Your task to perform on an android device: turn off notifications in google photos Image 0: 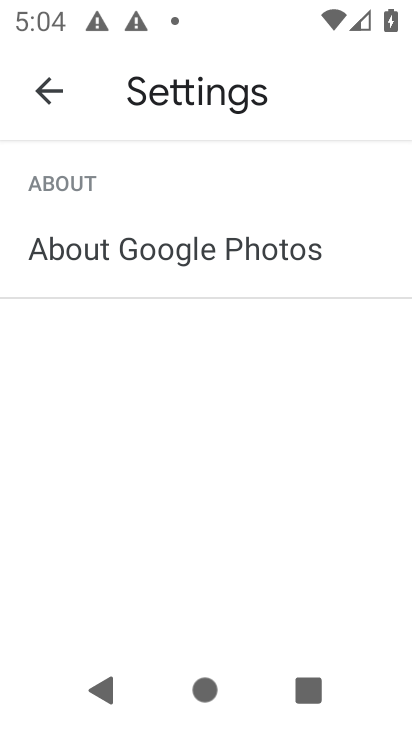
Step 0: press home button
Your task to perform on an android device: turn off notifications in google photos Image 1: 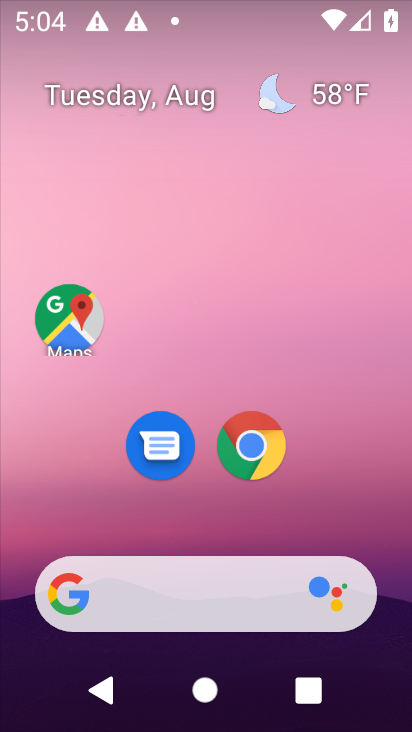
Step 1: drag from (195, 482) to (219, 76)
Your task to perform on an android device: turn off notifications in google photos Image 2: 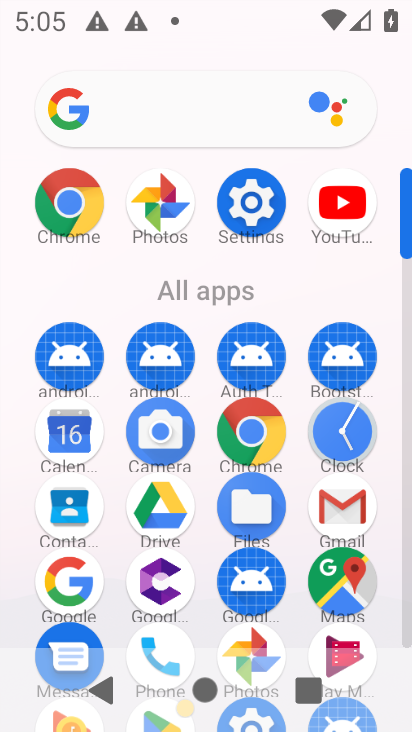
Step 2: click (250, 200)
Your task to perform on an android device: turn off notifications in google photos Image 3: 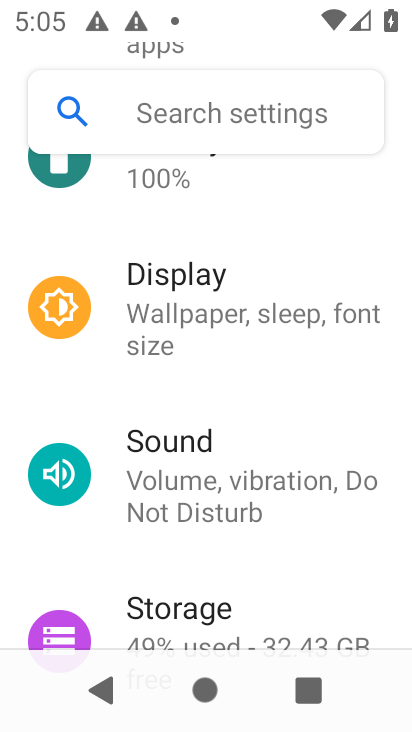
Step 3: press home button
Your task to perform on an android device: turn off notifications in google photos Image 4: 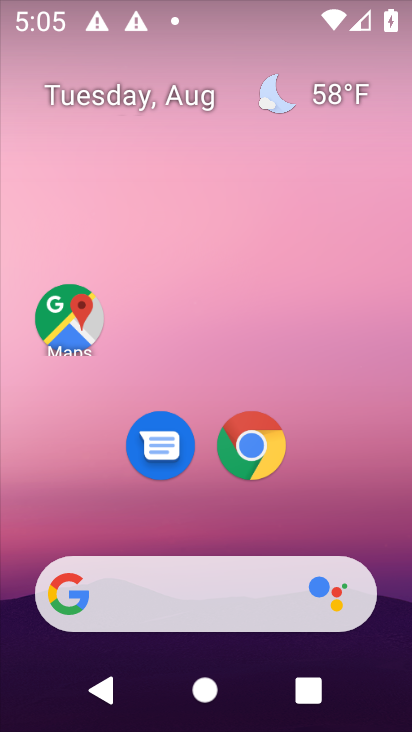
Step 4: drag from (211, 511) to (184, 119)
Your task to perform on an android device: turn off notifications in google photos Image 5: 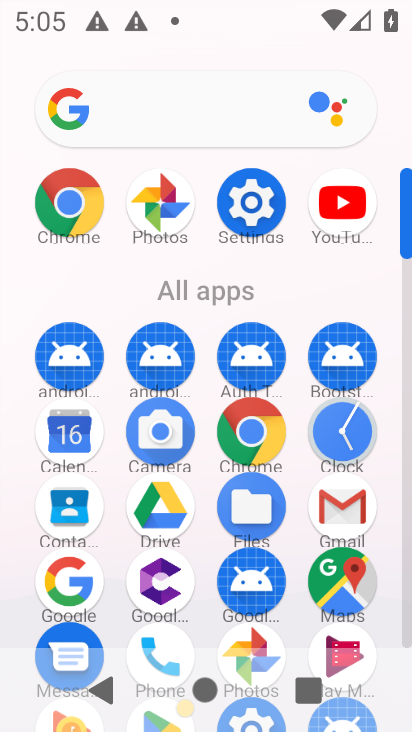
Step 5: click (245, 633)
Your task to perform on an android device: turn off notifications in google photos Image 6: 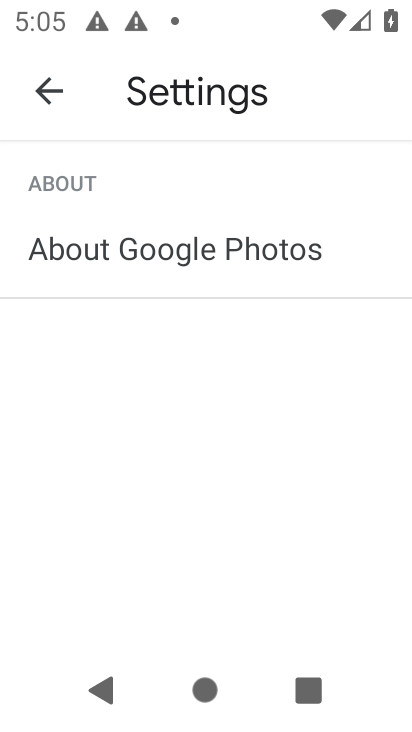
Step 6: click (40, 97)
Your task to perform on an android device: turn off notifications in google photos Image 7: 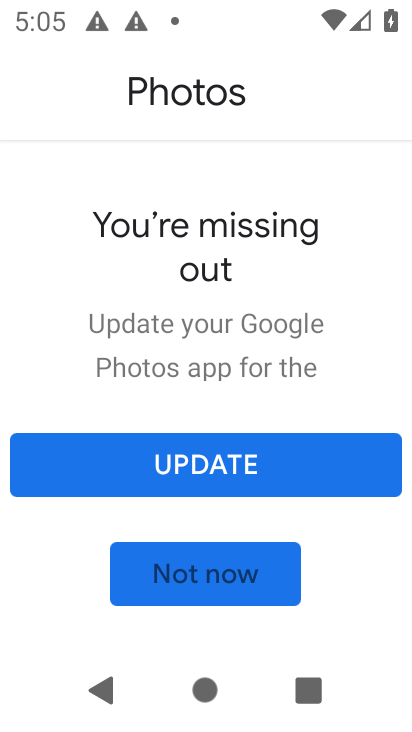
Step 7: click (184, 462)
Your task to perform on an android device: turn off notifications in google photos Image 8: 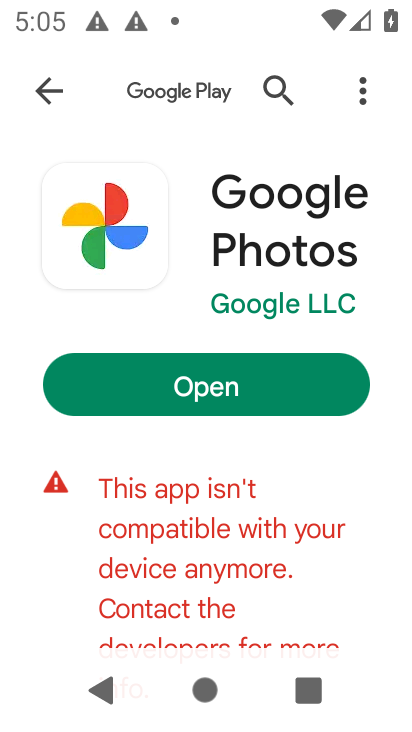
Step 8: drag from (305, 563) to (301, 350)
Your task to perform on an android device: turn off notifications in google photos Image 9: 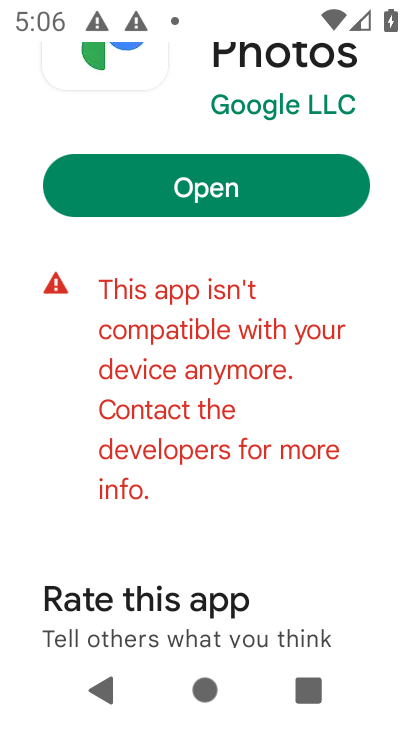
Step 9: click (235, 242)
Your task to perform on an android device: turn off notifications in google photos Image 10: 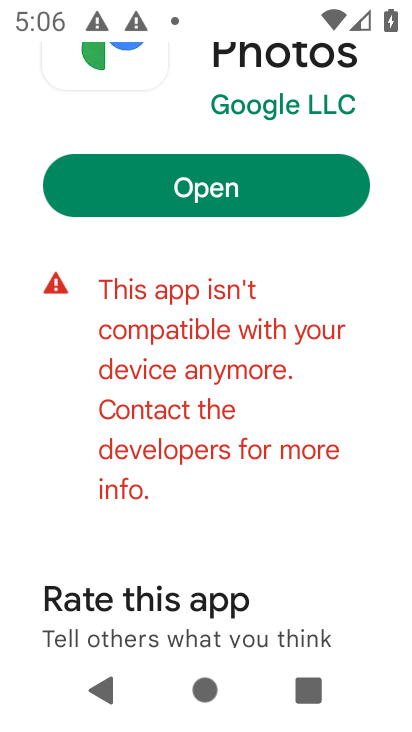
Step 10: click (235, 182)
Your task to perform on an android device: turn off notifications in google photos Image 11: 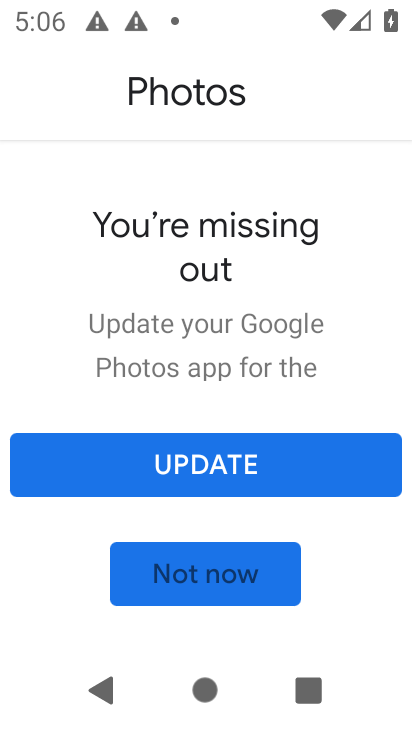
Step 11: click (221, 457)
Your task to perform on an android device: turn off notifications in google photos Image 12: 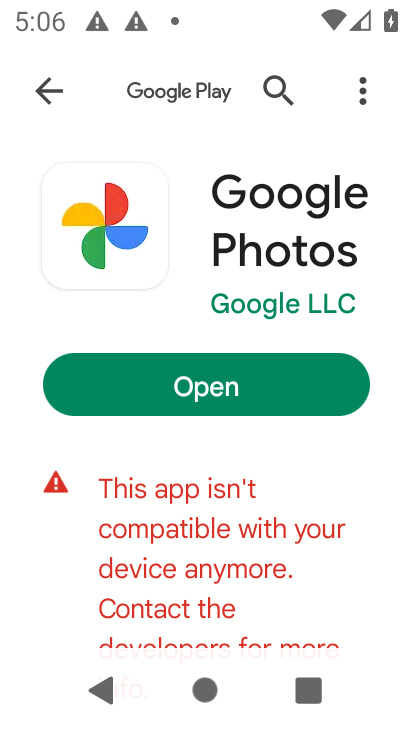
Step 12: task complete